Your task to perform on an android device: Open Google Maps Image 0: 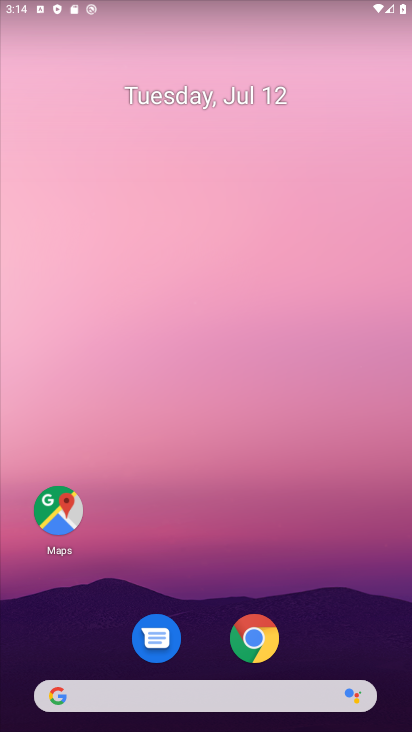
Step 0: click (32, 509)
Your task to perform on an android device: Open Google Maps Image 1: 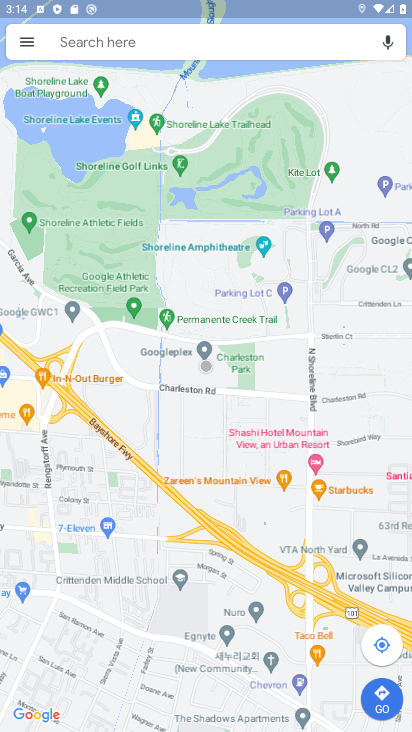
Step 1: task complete